Your task to perform on an android device: Open notification settings Image 0: 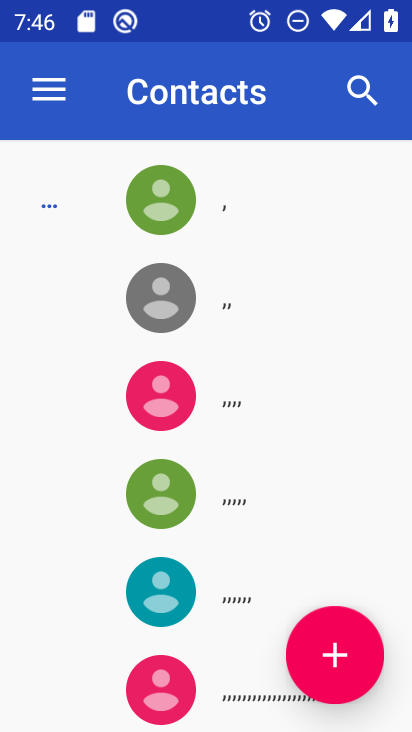
Step 0: press home button
Your task to perform on an android device: Open notification settings Image 1: 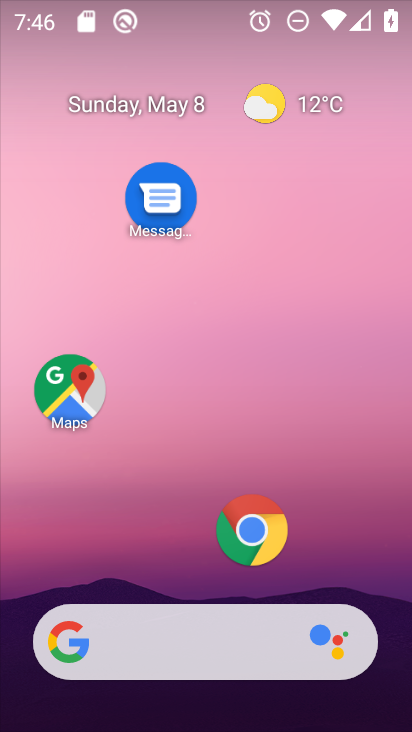
Step 1: drag from (196, 582) to (233, 82)
Your task to perform on an android device: Open notification settings Image 2: 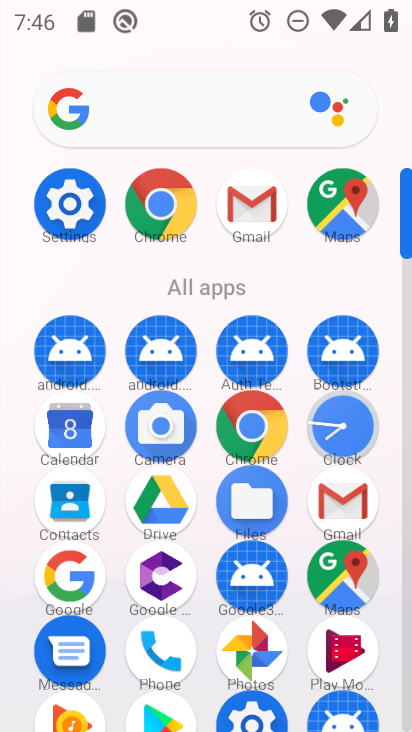
Step 2: click (66, 195)
Your task to perform on an android device: Open notification settings Image 3: 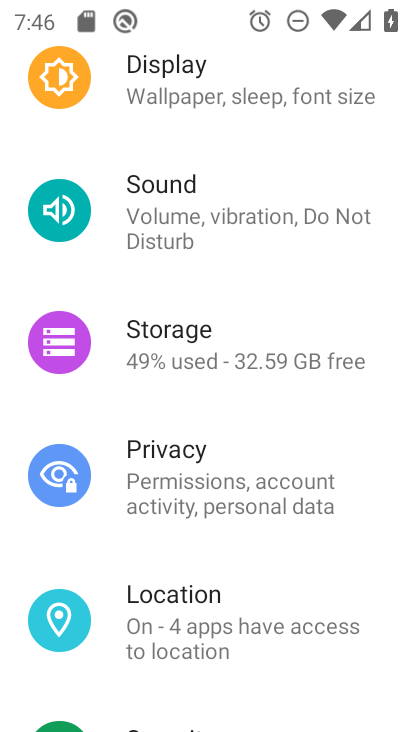
Step 3: drag from (204, 111) to (228, 645)
Your task to perform on an android device: Open notification settings Image 4: 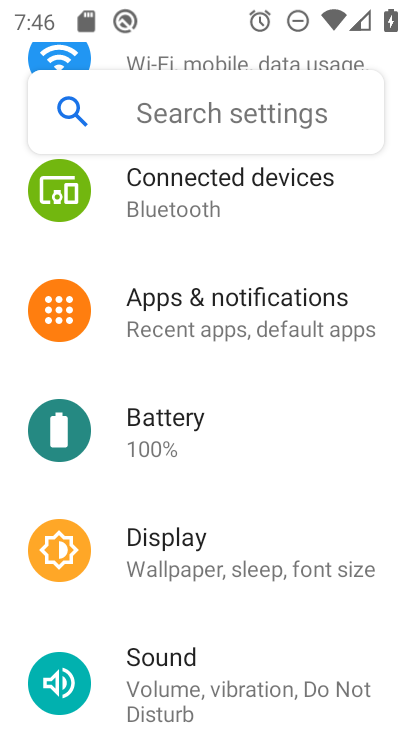
Step 4: click (150, 319)
Your task to perform on an android device: Open notification settings Image 5: 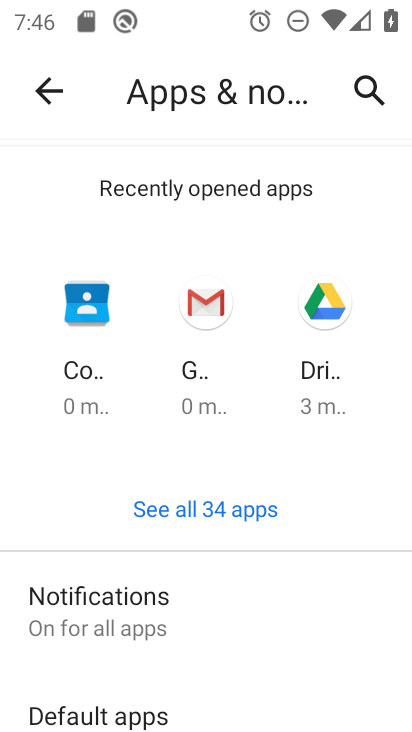
Step 5: click (177, 617)
Your task to perform on an android device: Open notification settings Image 6: 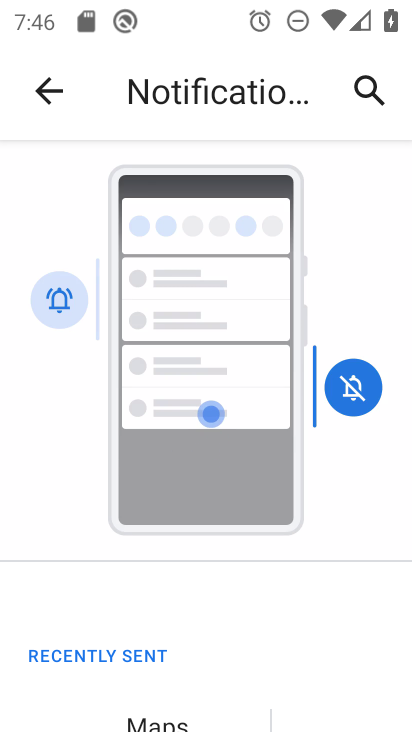
Step 6: drag from (259, 704) to (246, 132)
Your task to perform on an android device: Open notification settings Image 7: 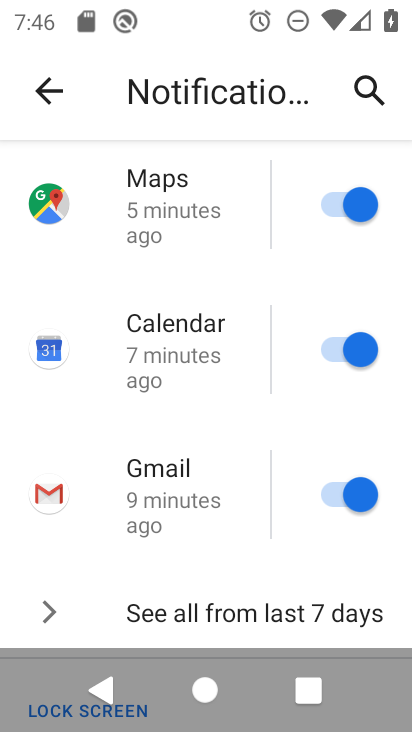
Step 7: click (328, 200)
Your task to perform on an android device: Open notification settings Image 8: 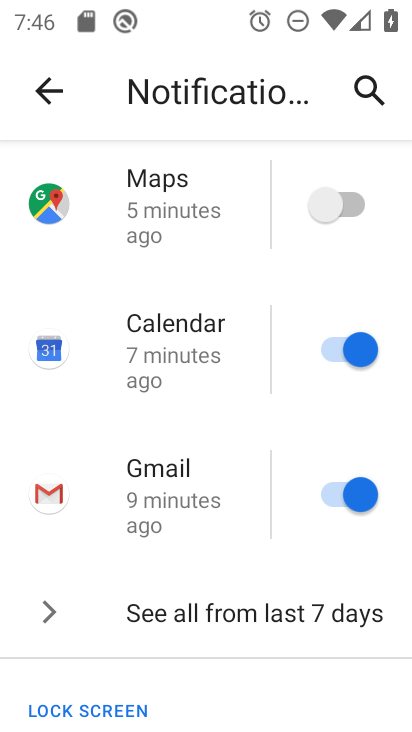
Step 8: click (333, 339)
Your task to perform on an android device: Open notification settings Image 9: 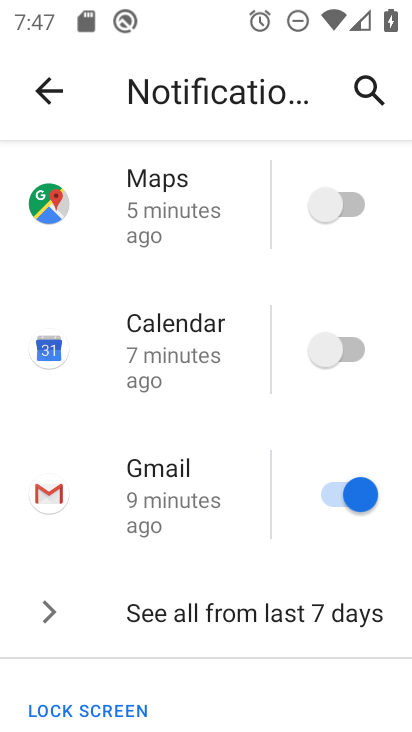
Step 9: click (336, 489)
Your task to perform on an android device: Open notification settings Image 10: 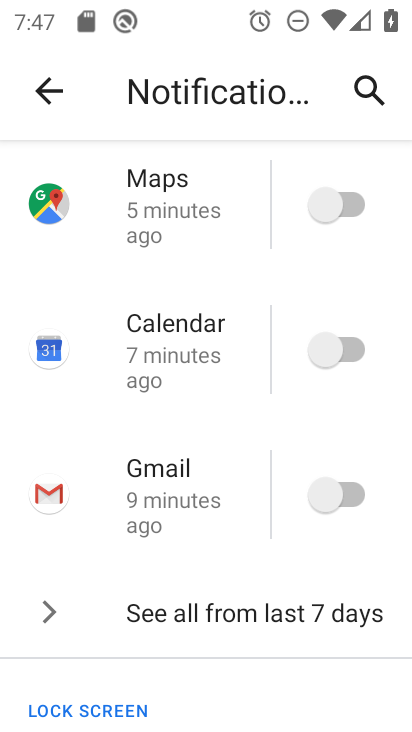
Step 10: drag from (212, 675) to (224, 160)
Your task to perform on an android device: Open notification settings Image 11: 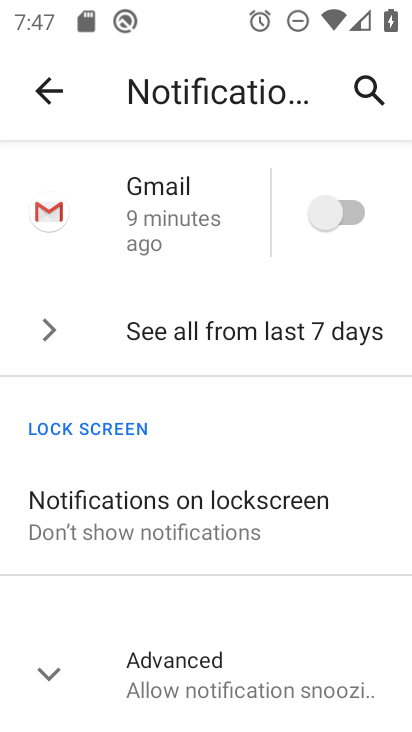
Step 11: click (274, 535)
Your task to perform on an android device: Open notification settings Image 12: 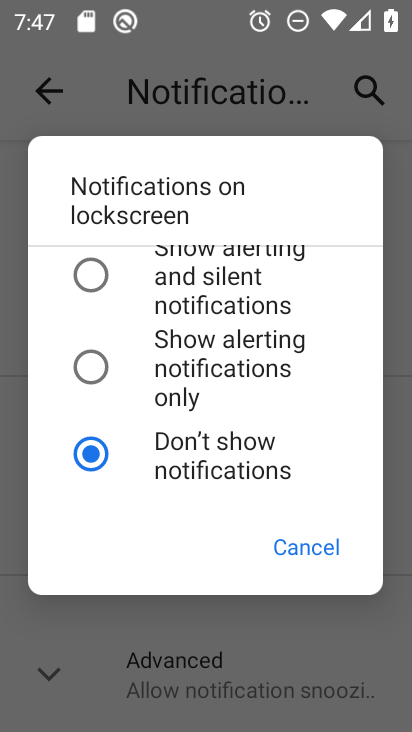
Step 12: click (87, 273)
Your task to perform on an android device: Open notification settings Image 13: 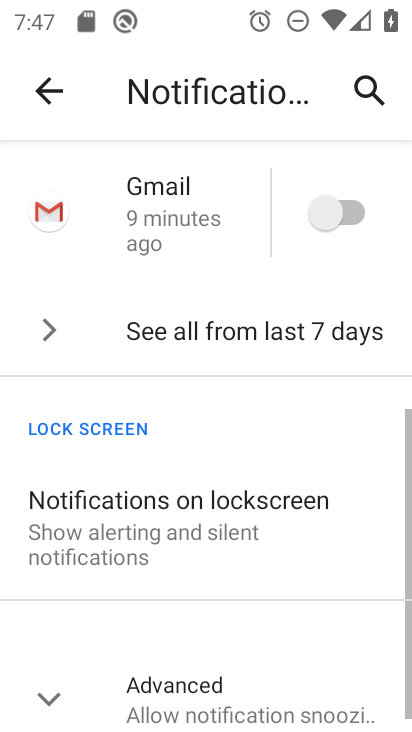
Step 13: task complete